Your task to perform on an android device: Search for usb-b on newegg, select the first entry, add it to the cart, then select checkout. Image 0: 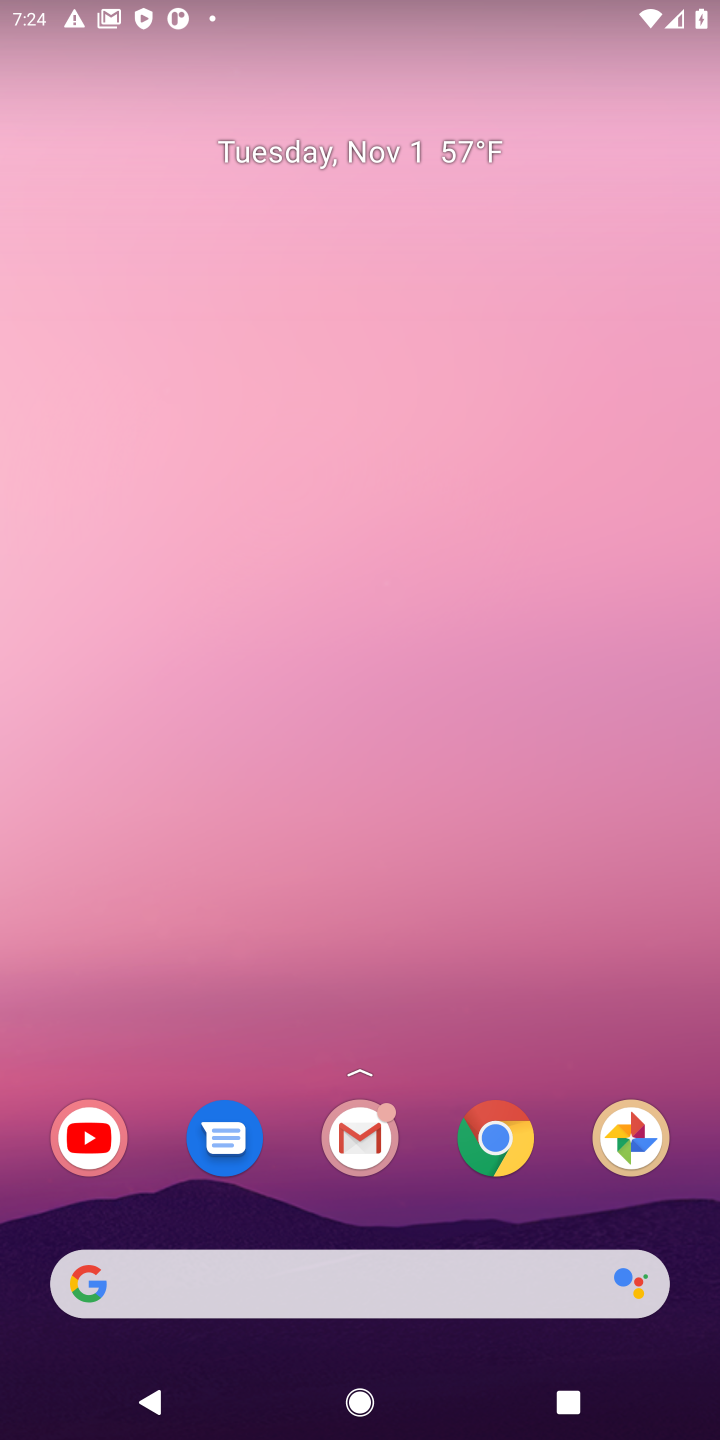
Step 0: click (488, 1129)
Your task to perform on an android device: Search for usb-b on newegg, select the first entry, add it to the cart, then select checkout. Image 1: 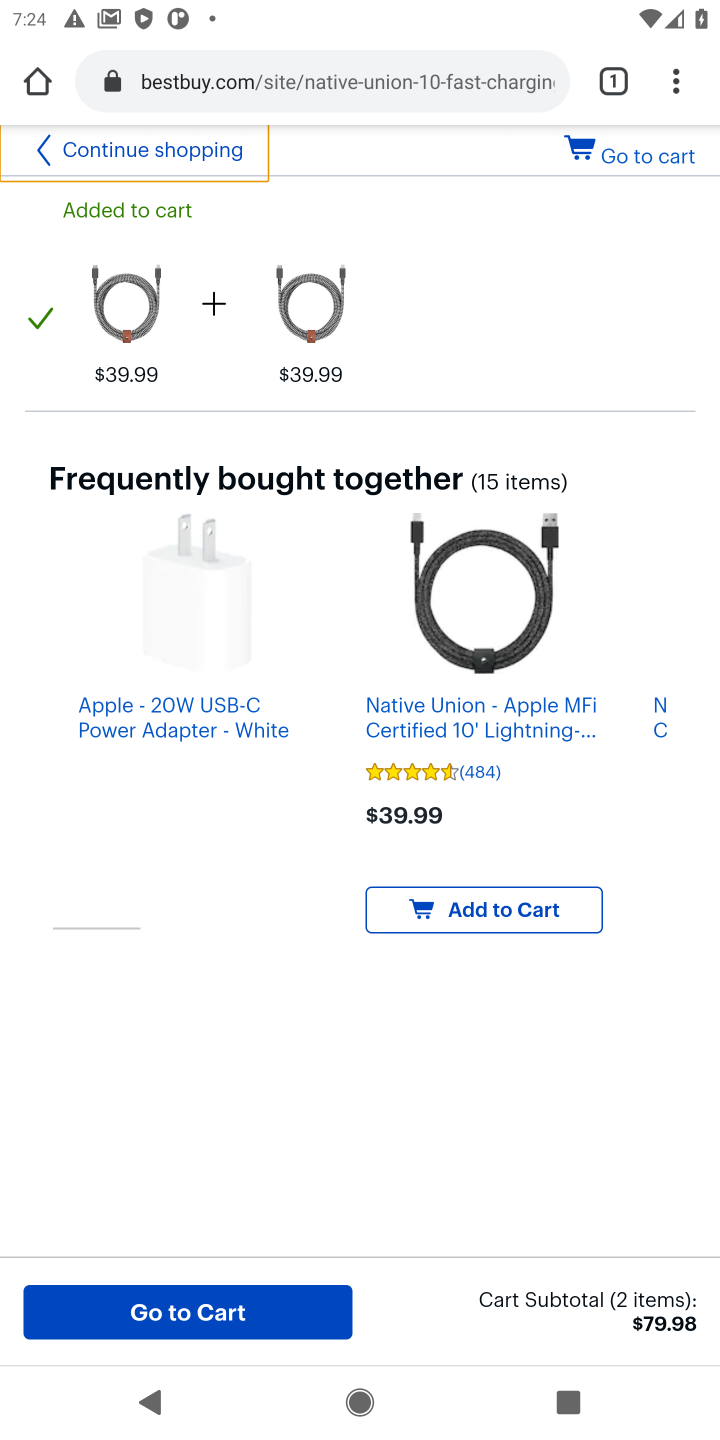
Step 1: click (188, 84)
Your task to perform on an android device: Search for usb-b on newegg, select the first entry, add it to the cart, then select checkout. Image 2: 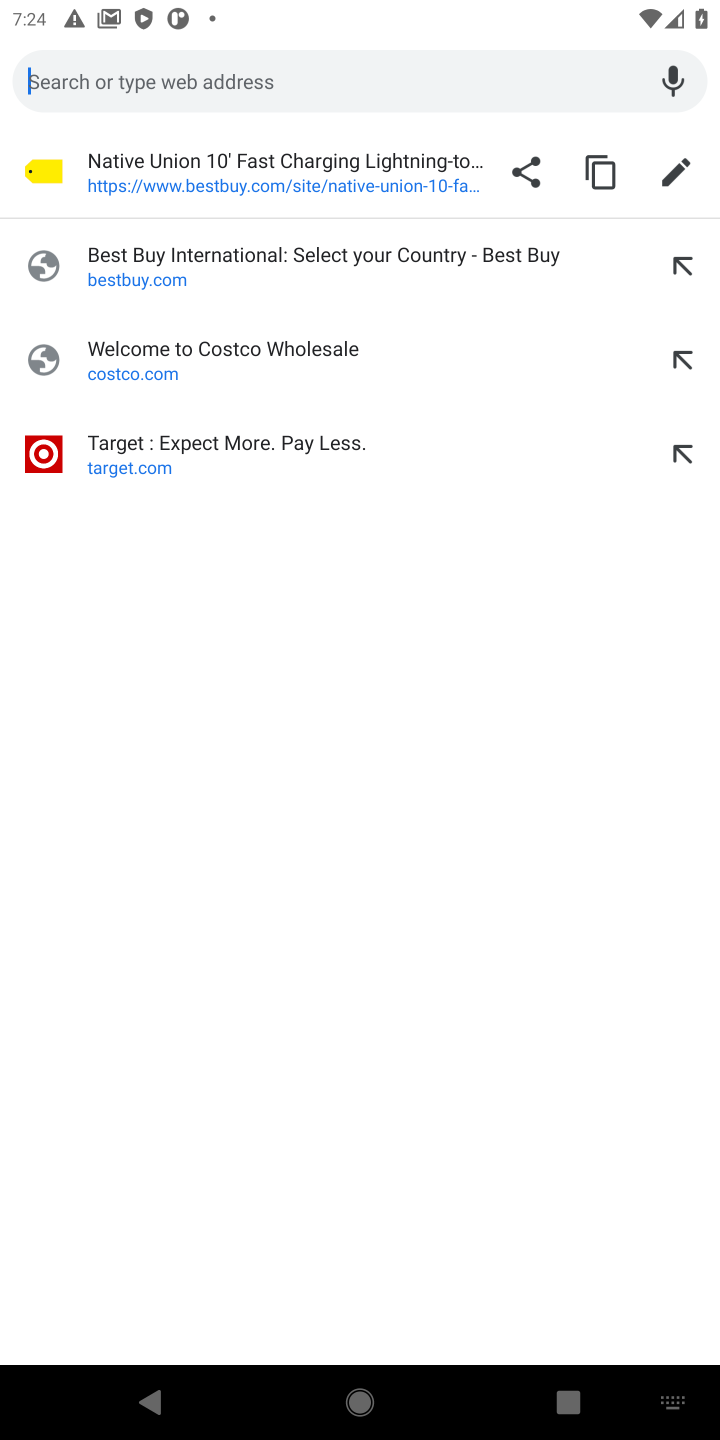
Step 2: type "newegg.com"
Your task to perform on an android device: Search for usb-b on newegg, select the first entry, add it to the cart, then select checkout. Image 3: 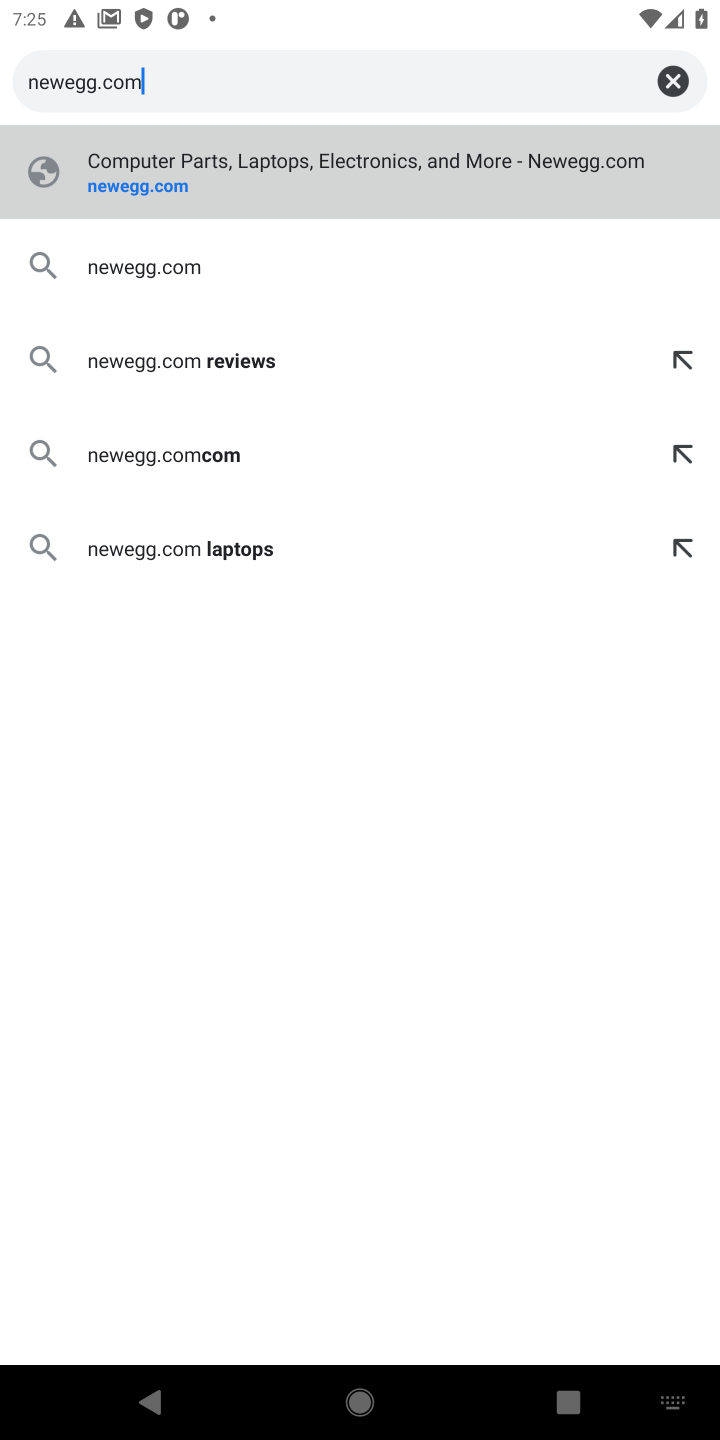
Step 3: click (151, 168)
Your task to perform on an android device: Search for usb-b on newegg, select the first entry, add it to the cart, then select checkout. Image 4: 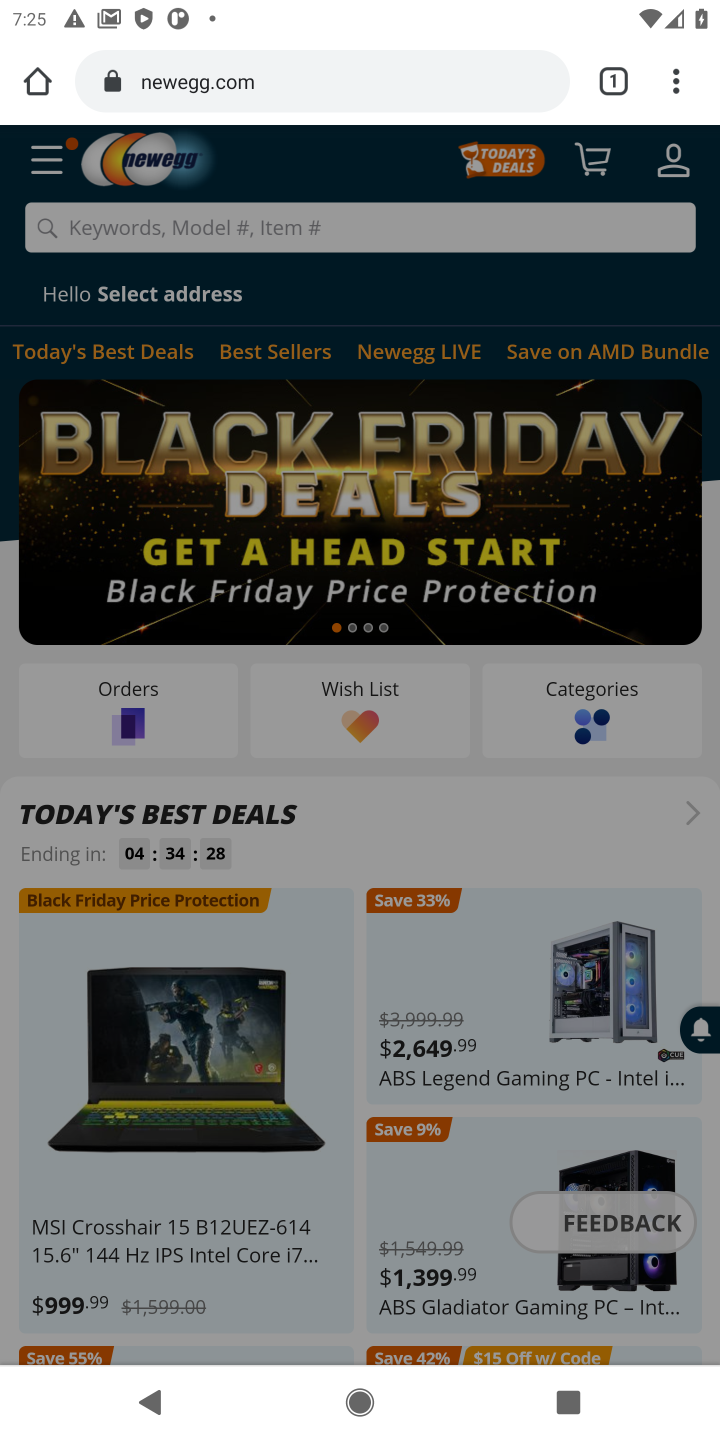
Step 4: click (230, 216)
Your task to perform on an android device: Search for usb-b on newegg, select the first entry, add it to the cart, then select checkout. Image 5: 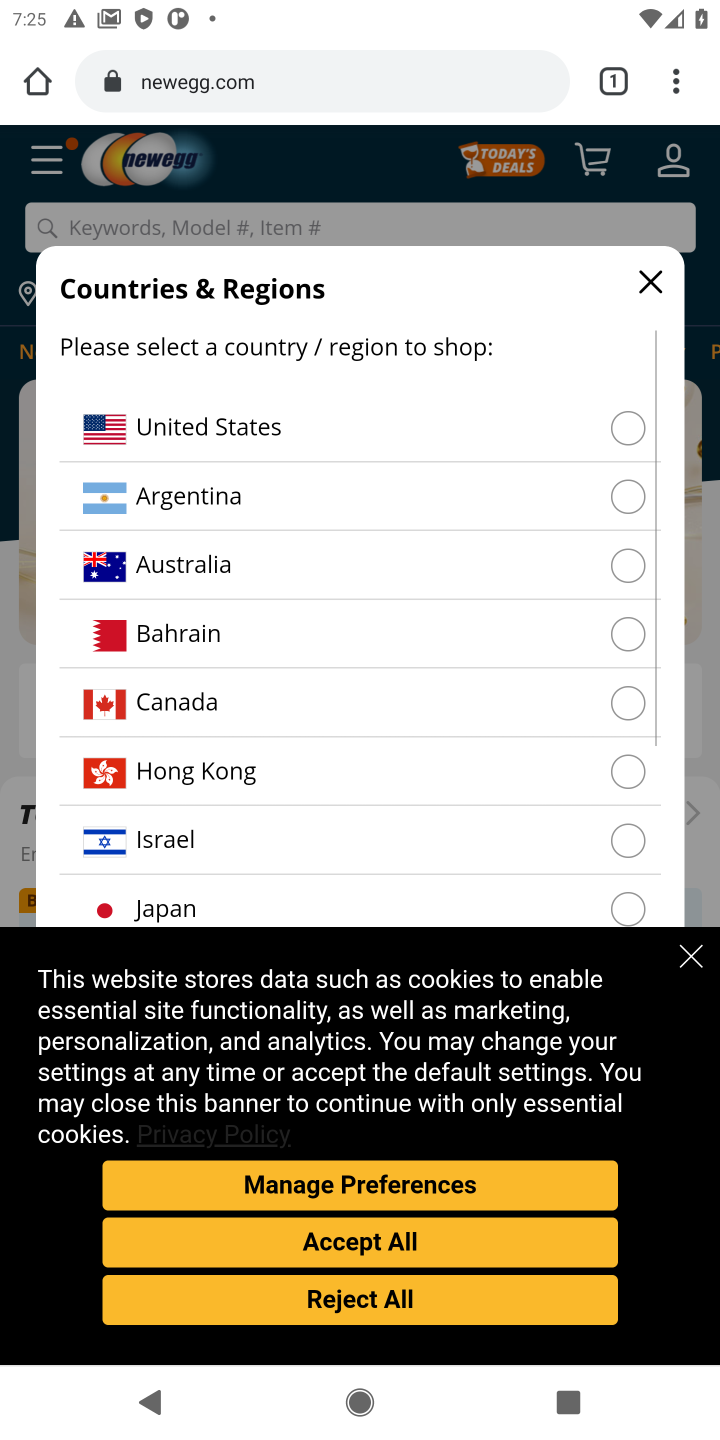
Step 5: click (654, 274)
Your task to perform on an android device: Search for usb-b on newegg, select the first entry, add it to the cart, then select checkout. Image 6: 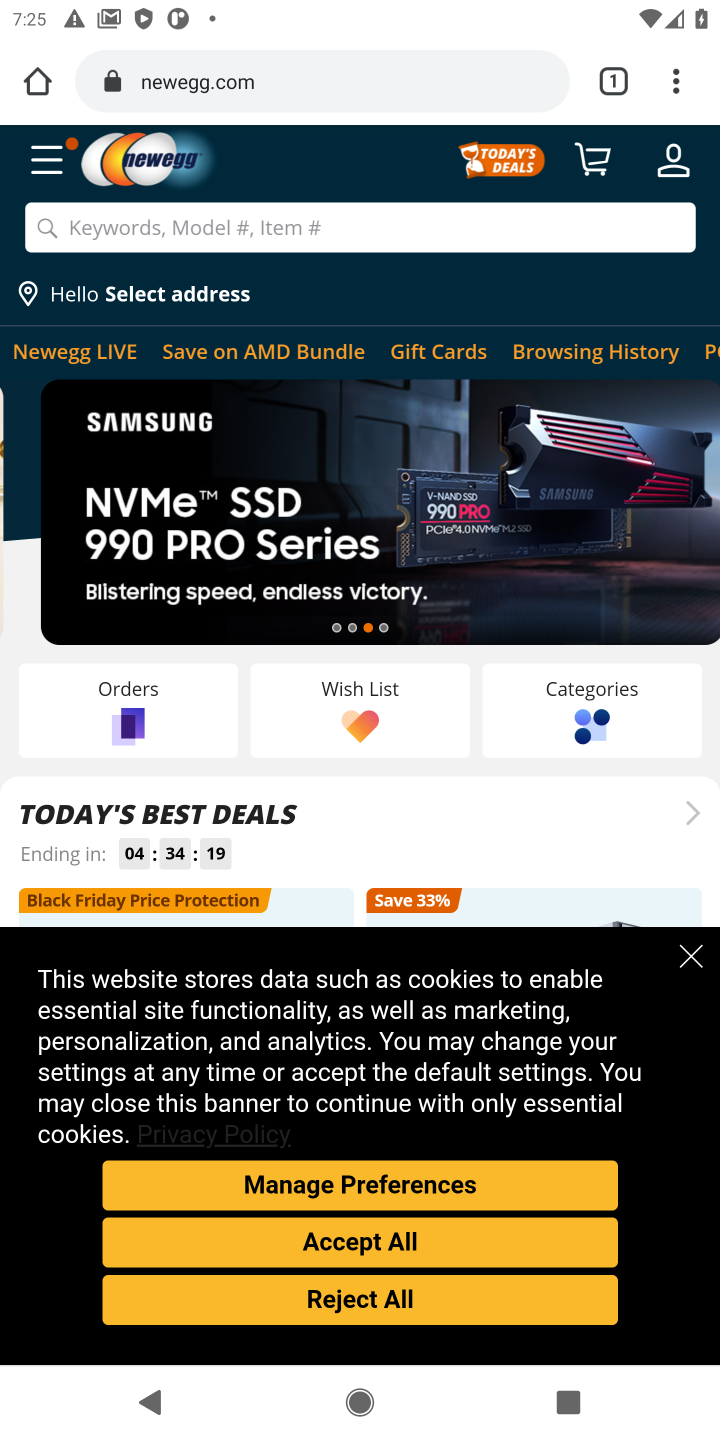
Step 6: click (88, 219)
Your task to perform on an android device: Search for usb-b on newegg, select the first entry, add it to the cart, then select checkout. Image 7: 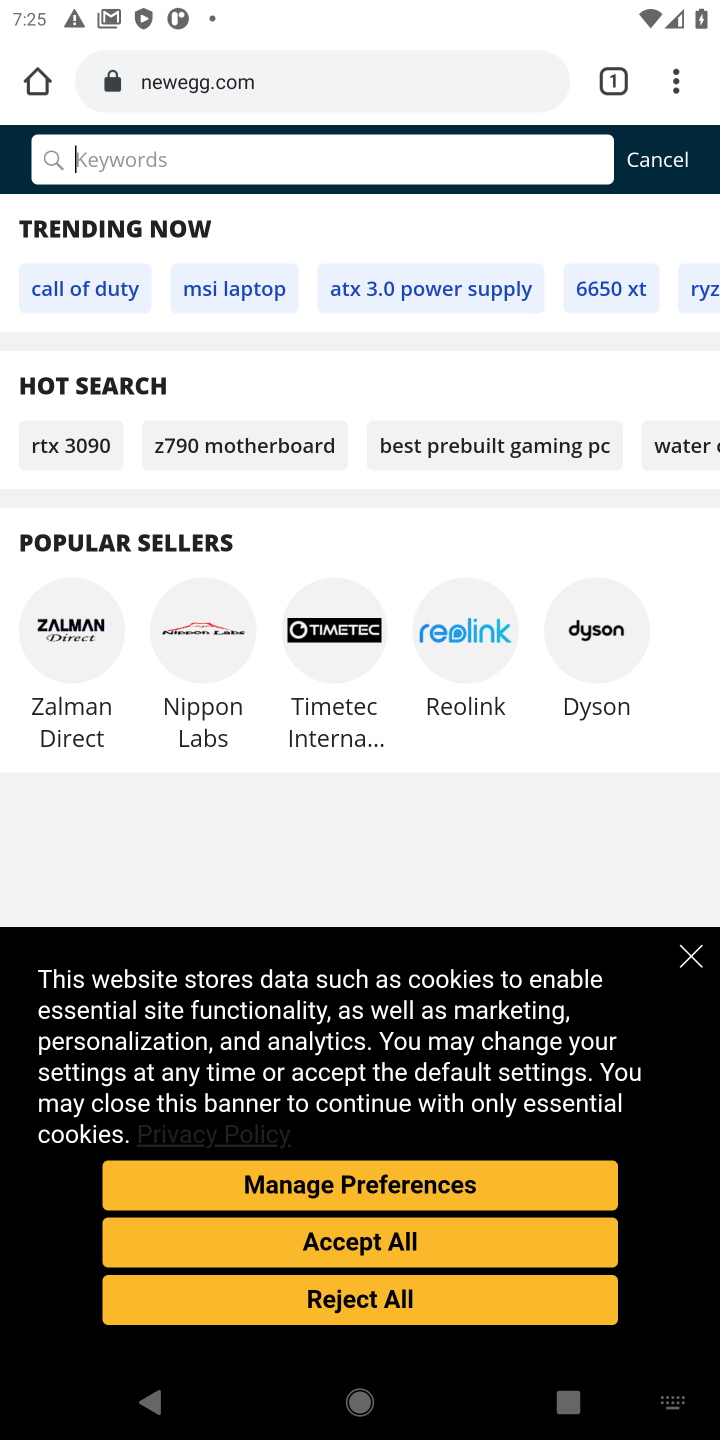
Step 7: type "usb-b"
Your task to perform on an android device: Search for usb-b on newegg, select the first entry, add it to the cart, then select checkout. Image 8: 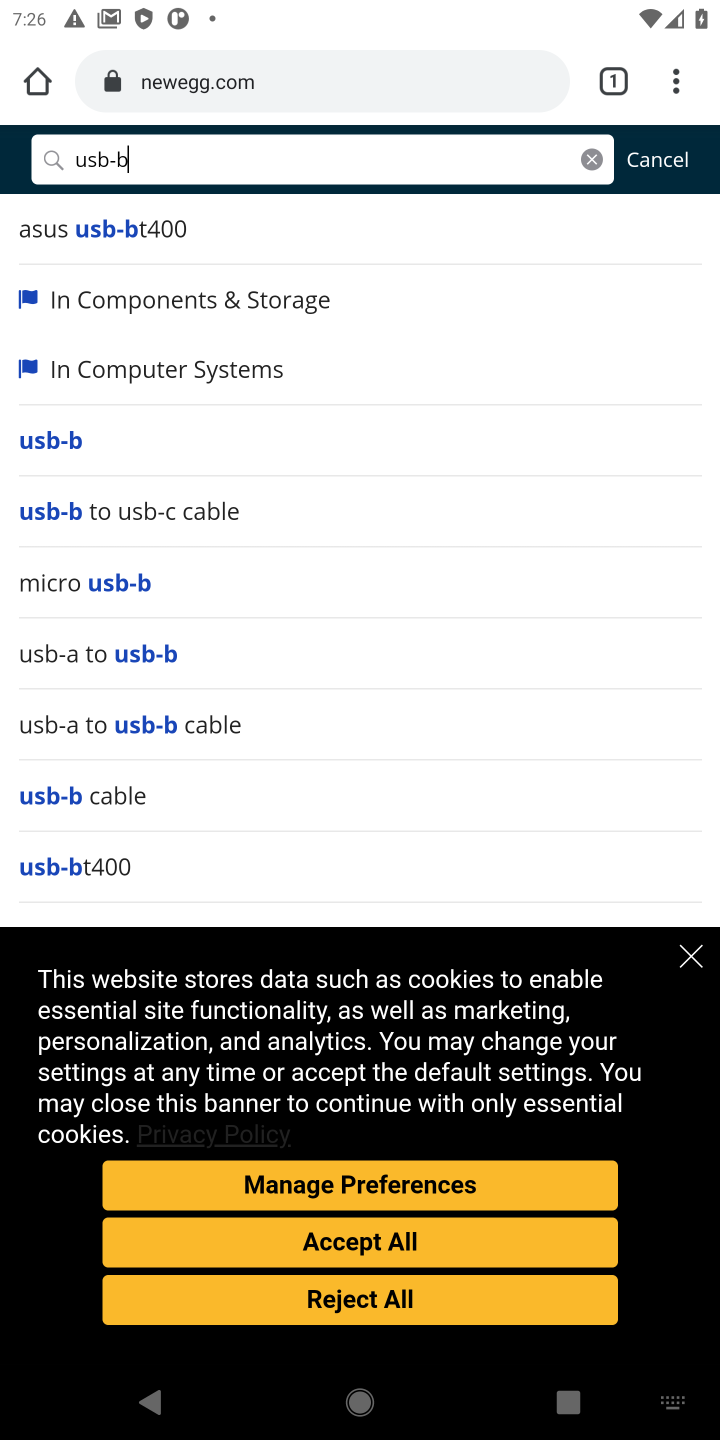
Step 8: click (49, 445)
Your task to perform on an android device: Search for usb-b on newegg, select the first entry, add it to the cart, then select checkout. Image 9: 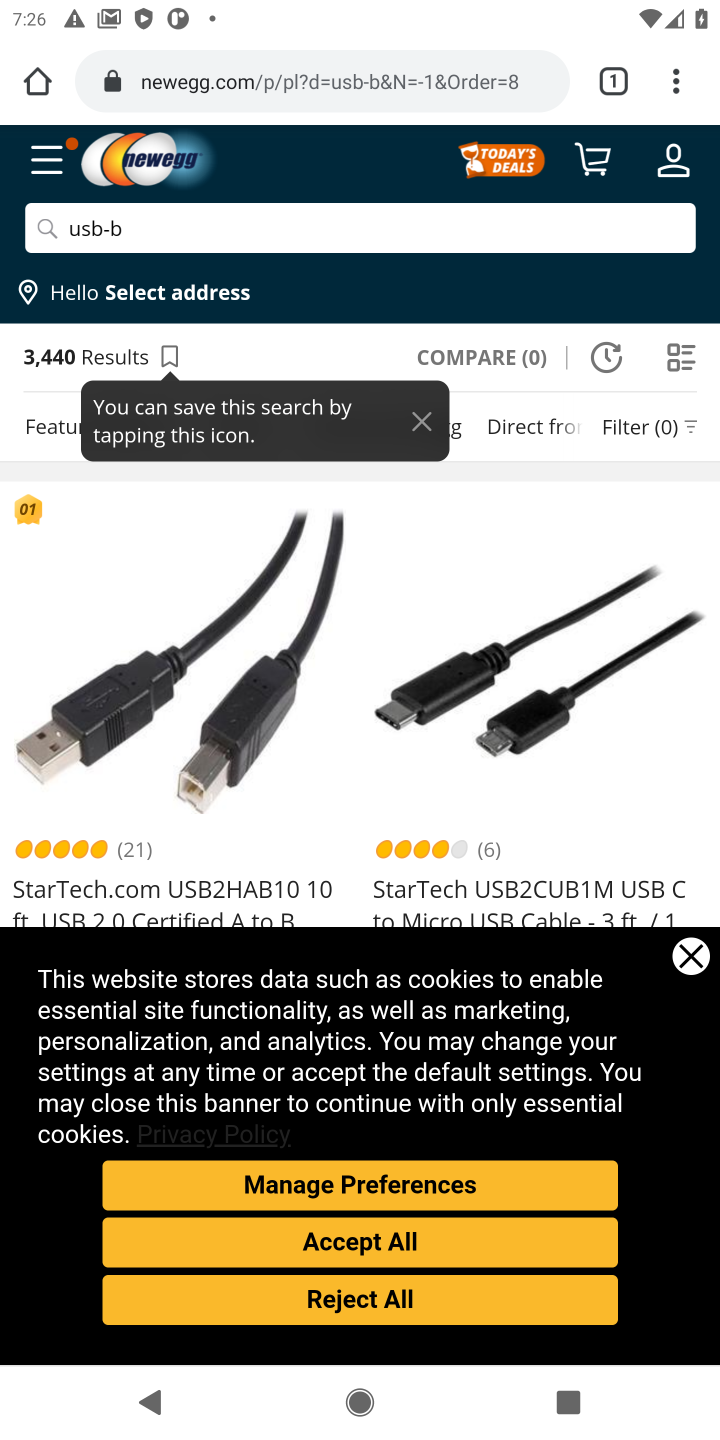
Step 9: click (689, 963)
Your task to perform on an android device: Search for usb-b on newegg, select the first entry, add it to the cart, then select checkout. Image 10: 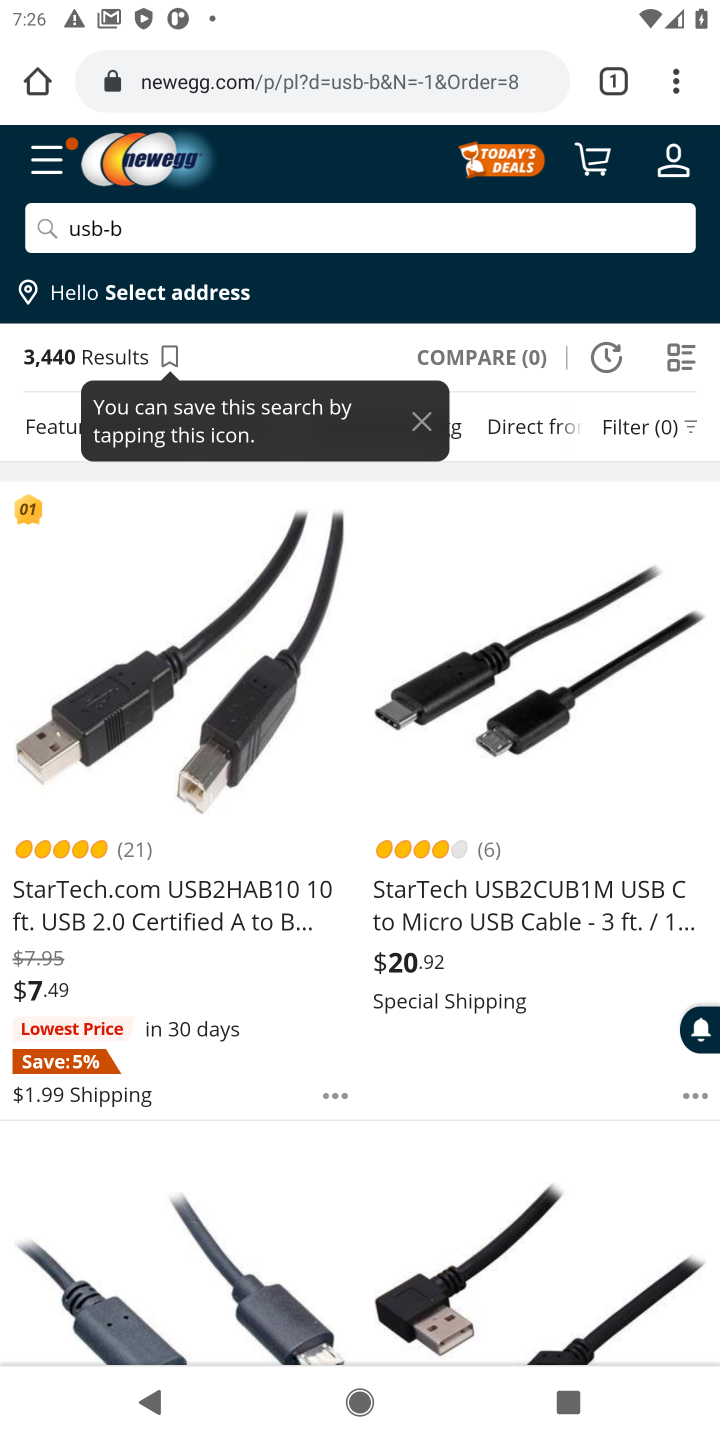
Step 10: click (158, 700)
Your task to perform on an android device: Search for usb-b on newegg, select the first entry, add it to the cart, then select checkout. Image 11: 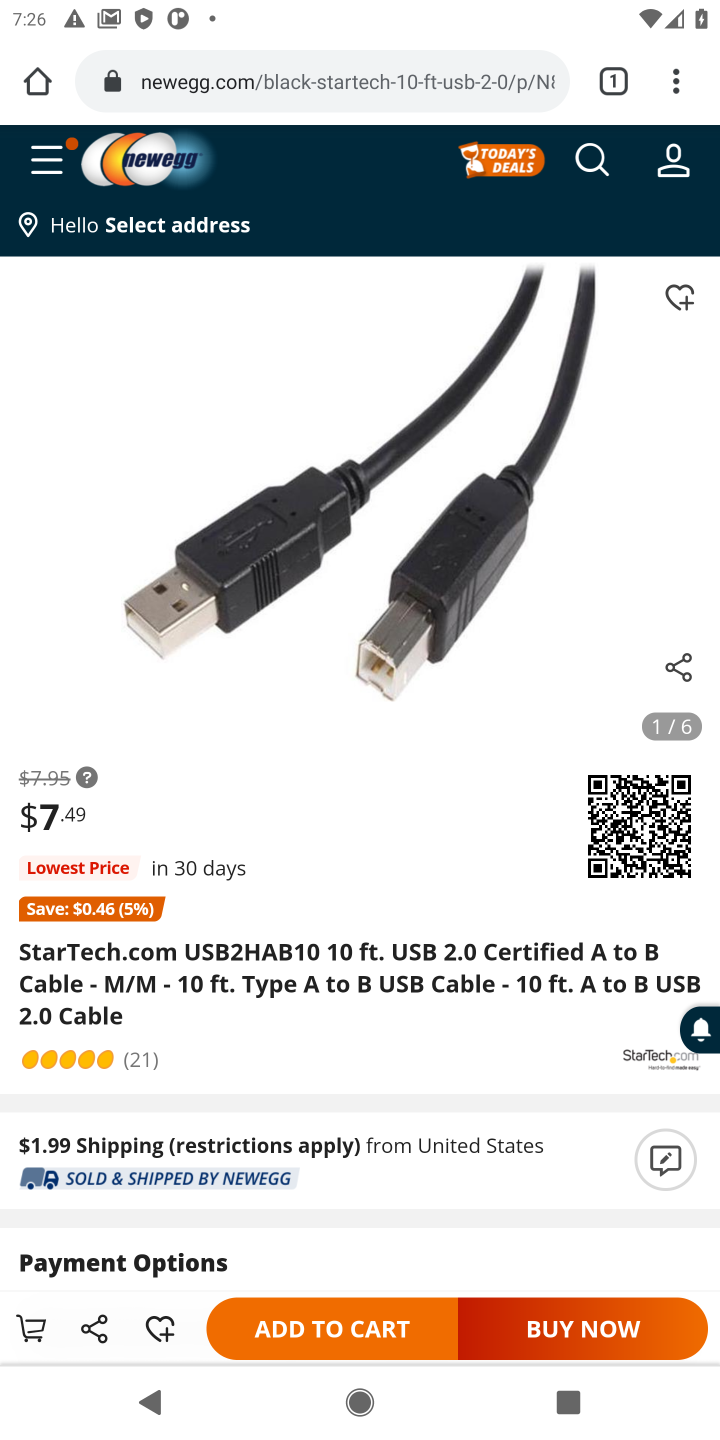
Step 11: click (344, 1323)
Your task to perform on an android device: Search for usb-b on newegg, select the first entry, add it to the cart, then select checkout. Image 12: 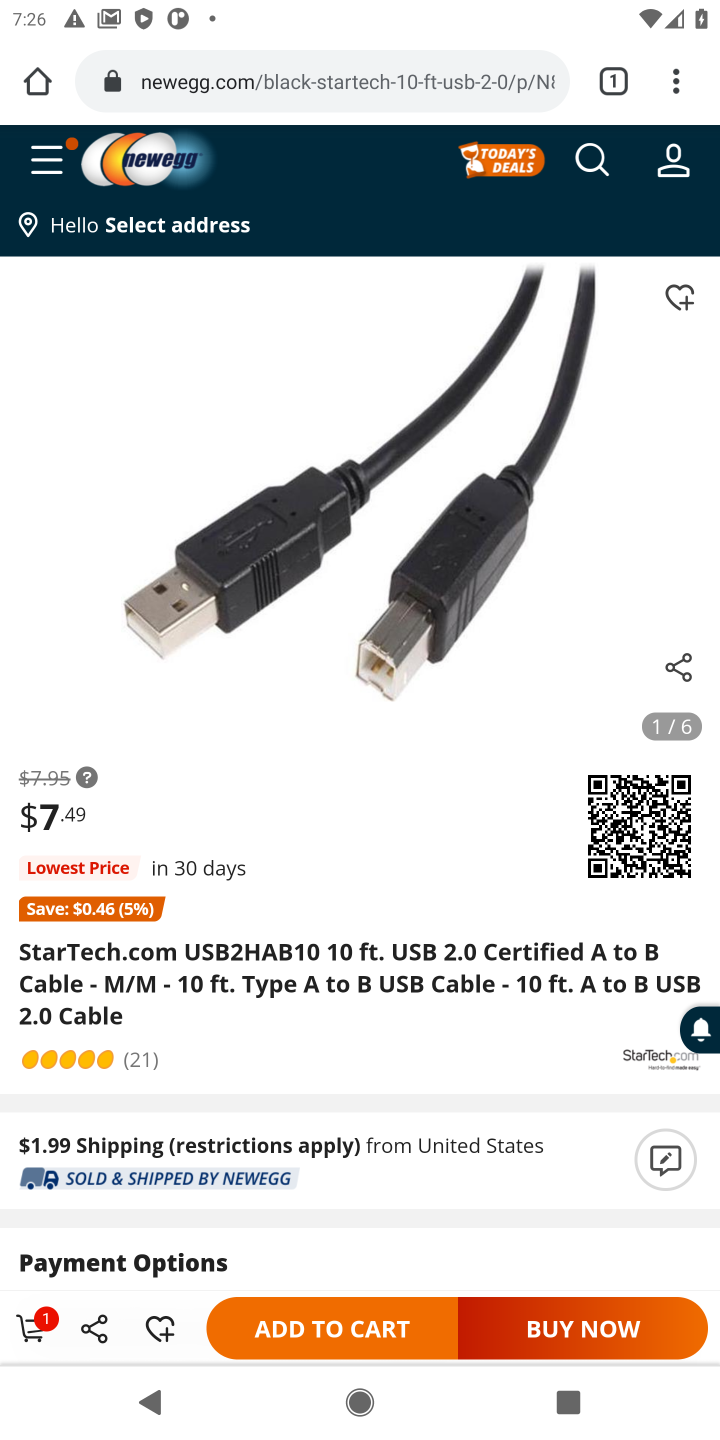
Step 12: click (27, 1332)
Your task to perform on an android device: Search for usb-b on newegg, select the first entry, add it to the cart, then select checkout. Image 13: 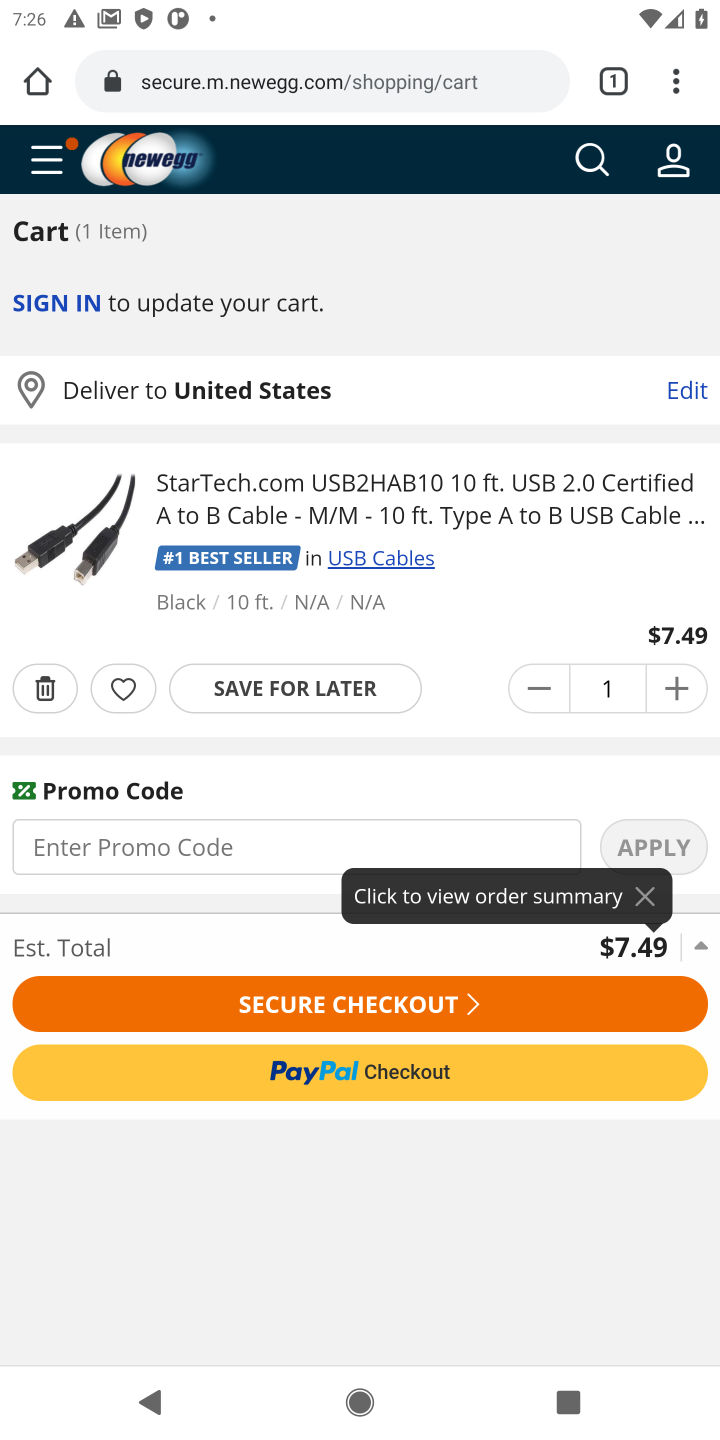
Step 13: click (295, 1004)
Your task to perform on an android device: Search for usb-b on newegg, select the first entry, add it to the cart, then select checkout. Image 14: 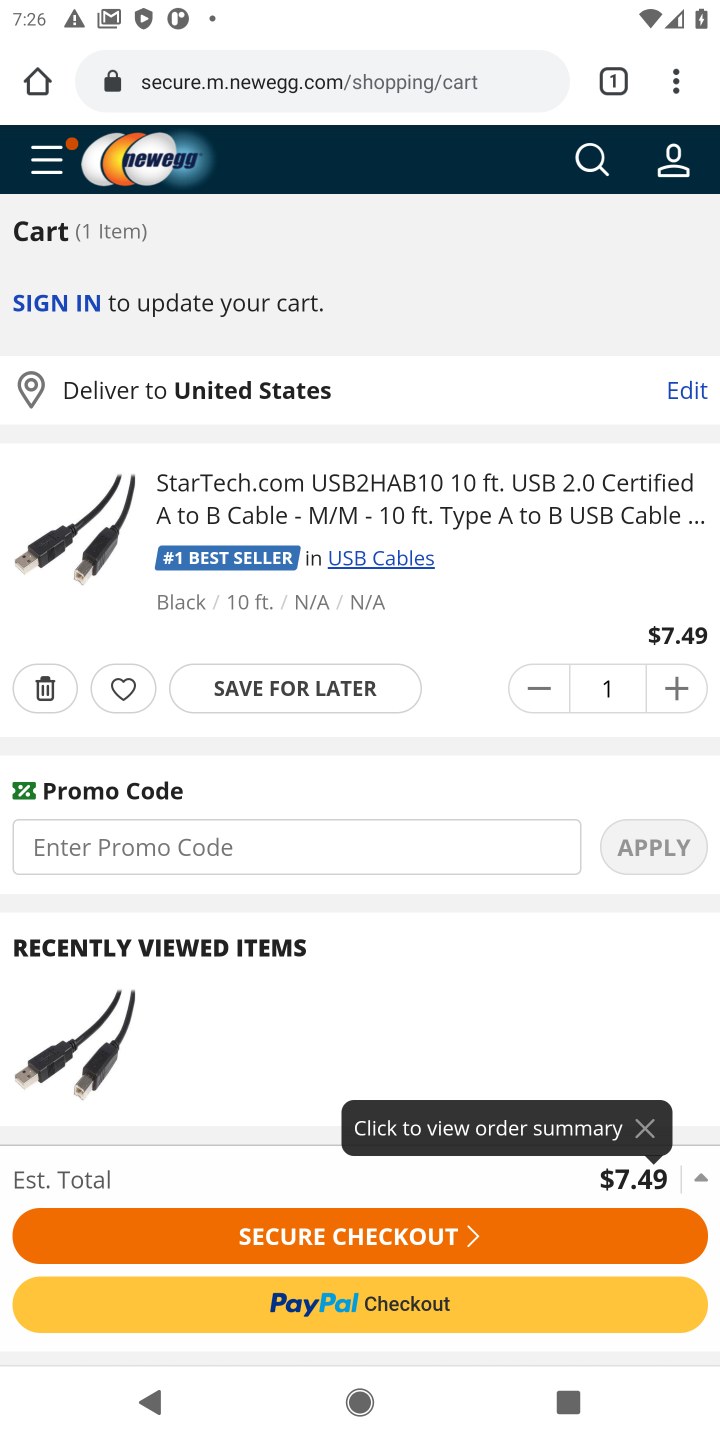
Step 14: click (318, 1249)
Your task to perform on an android device: Search for usb-b on newegg, select the first entry, add it to the cart, then select checkout. Image 15: 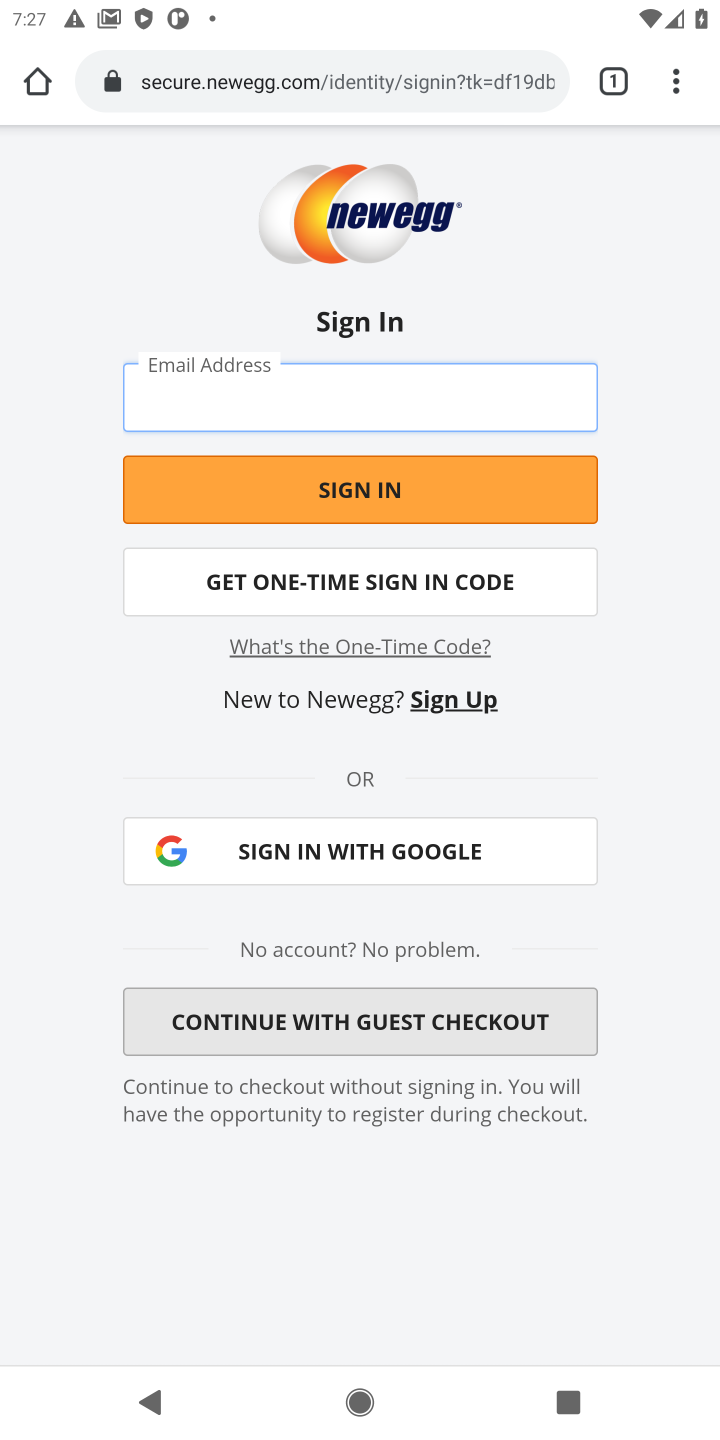
Step 15: task complete